Your task to perform on an android device: turn on airplane mode Image 0: 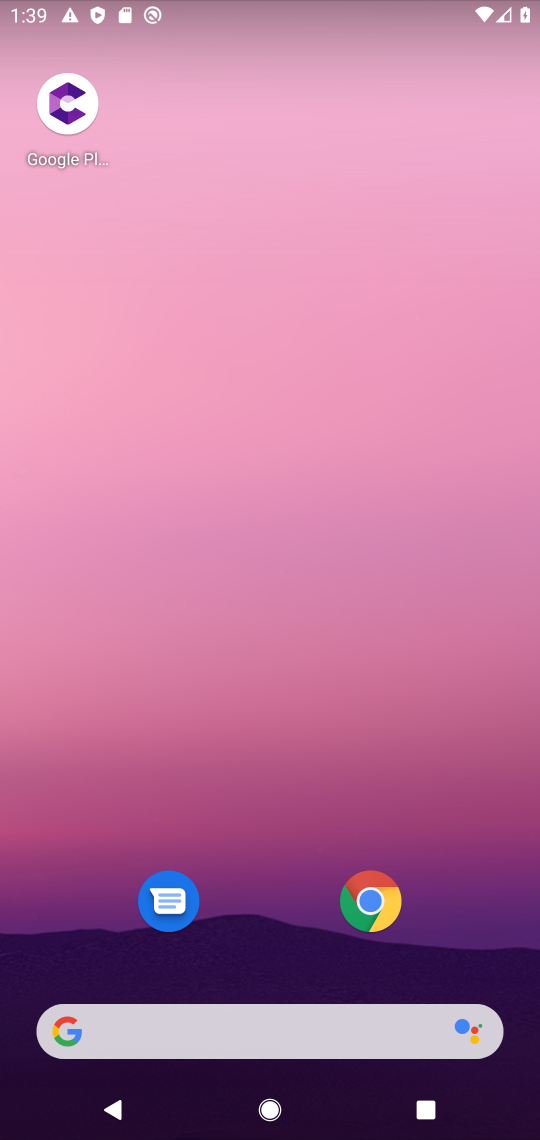
Step 0: drag from (282, 893) to (254, 24)
Your task to perform on an android device: turn on airplane mode Image 1: 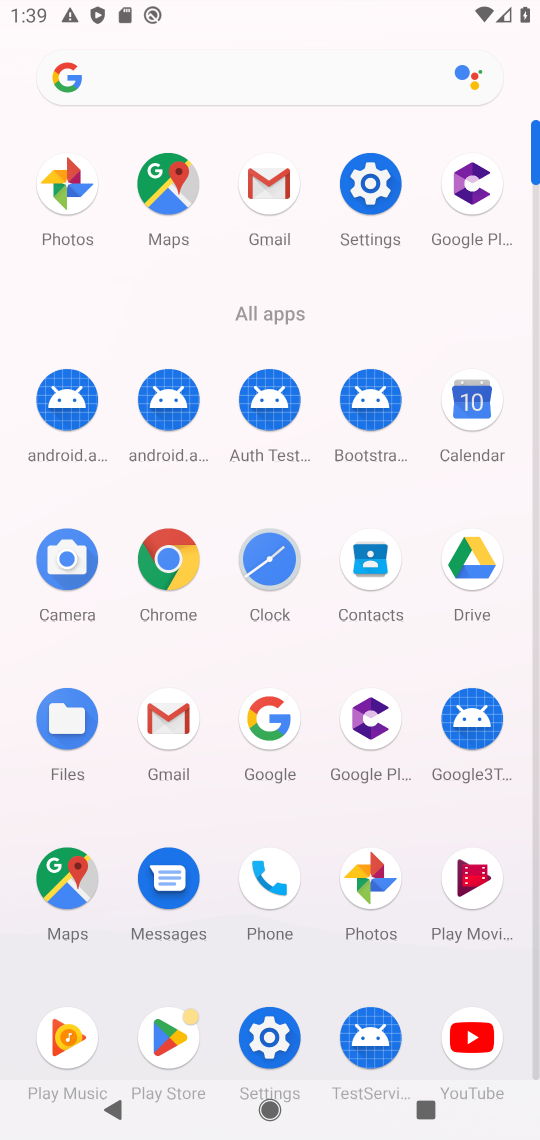
Step 1: click (365, 275)
Your task to perform on an android device: turn on airplane mode Image 2: 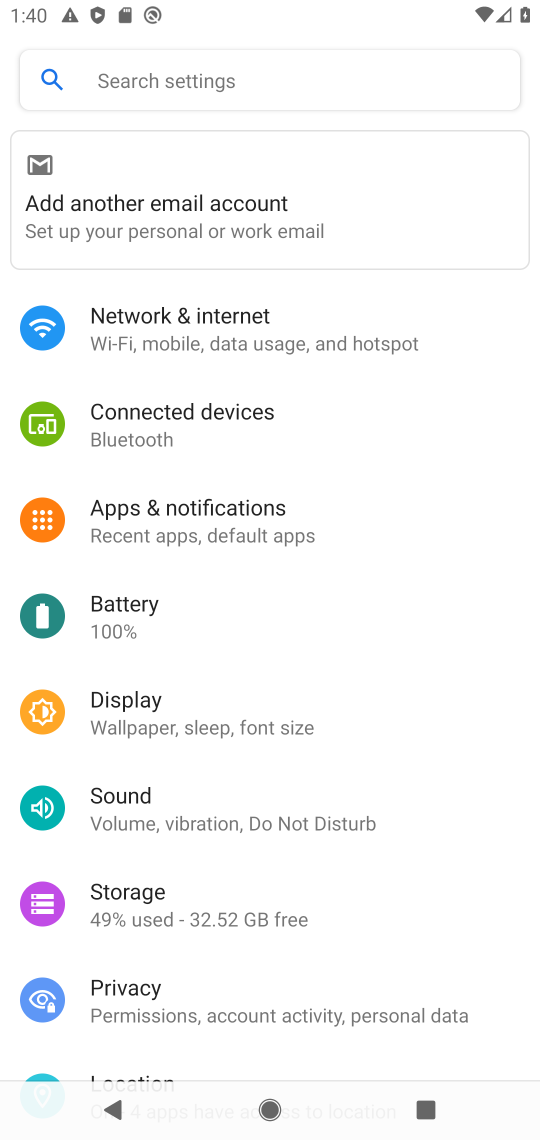
Step 2: click (166, 312)
Your task to perform on an android device: turn on airplane mode Image 3: 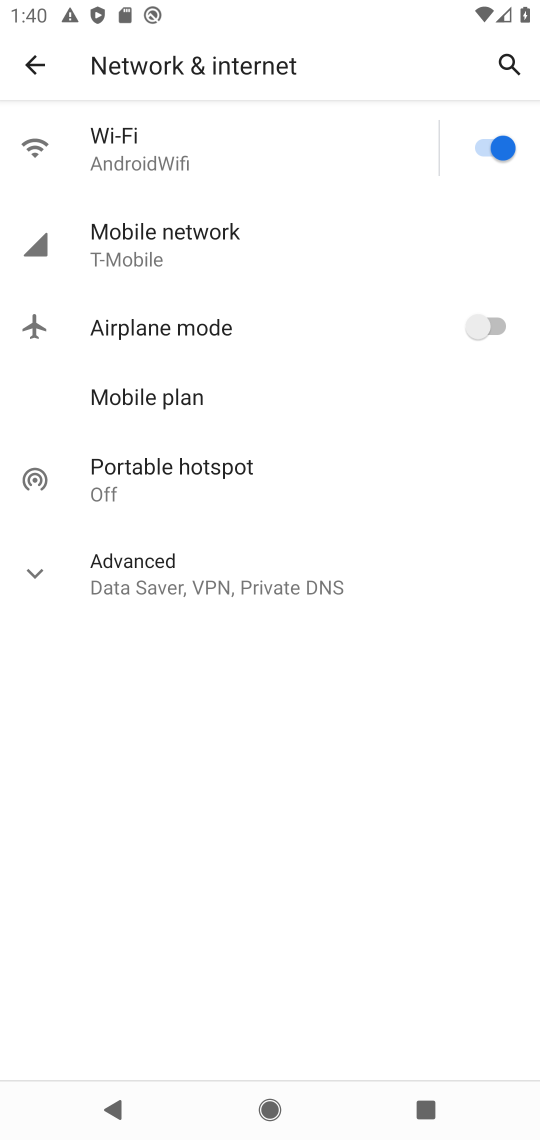
Step 3: click (480, 331)
Your task to perform on an android device: turn on airplane mode Image 4: 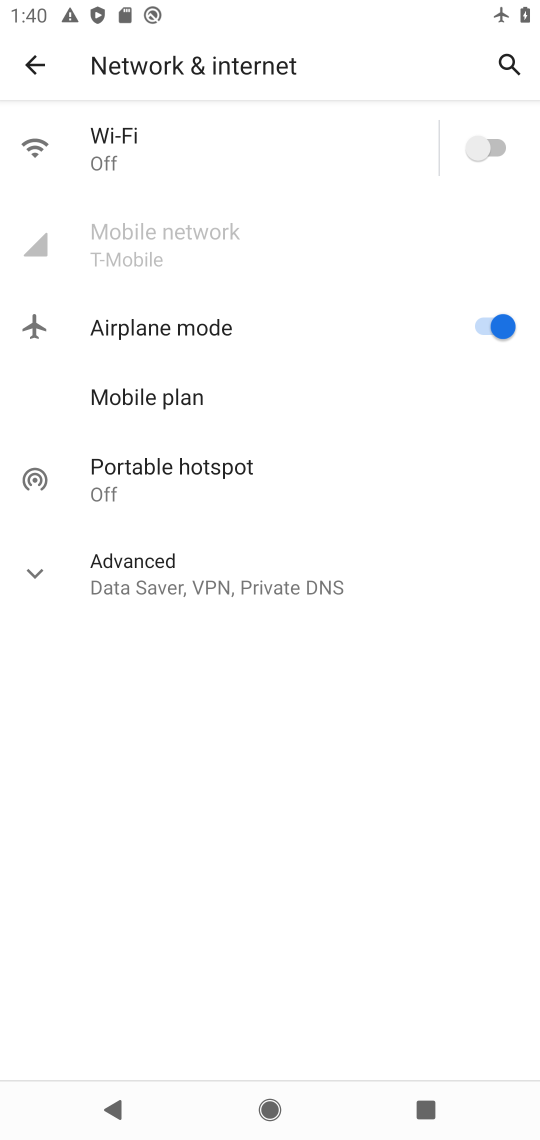
Step 4: task complete